Your task to perform on an android device: See recent photos Image 0: 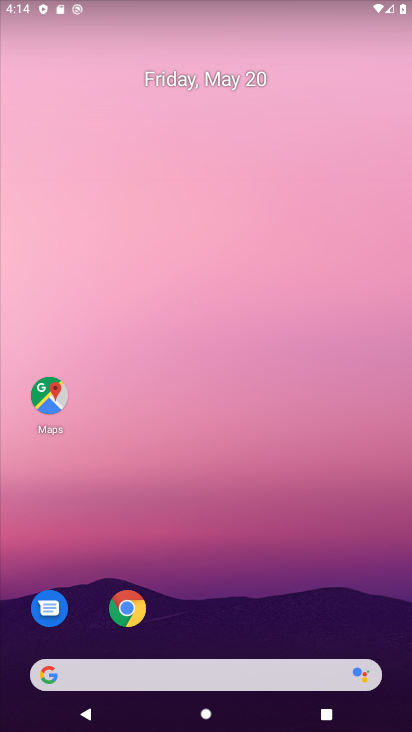
Step 0: drag from (200, 651) to (183, 60)
Your task to perform on an android device: See recent photos Image 1: 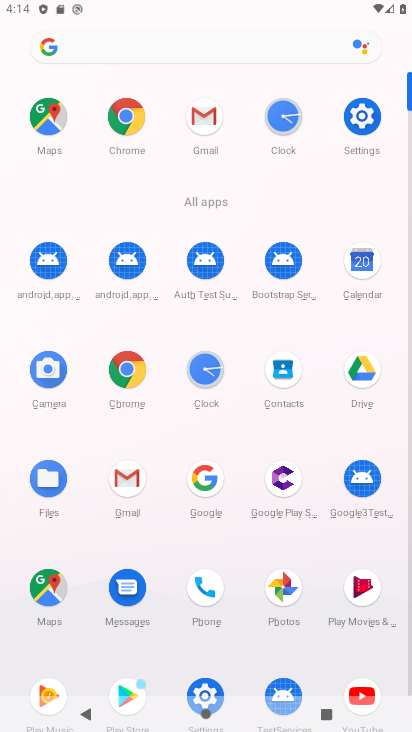
Step 1: click (294, 597)
Your task to perform on an android device: See recent photos Image 2: 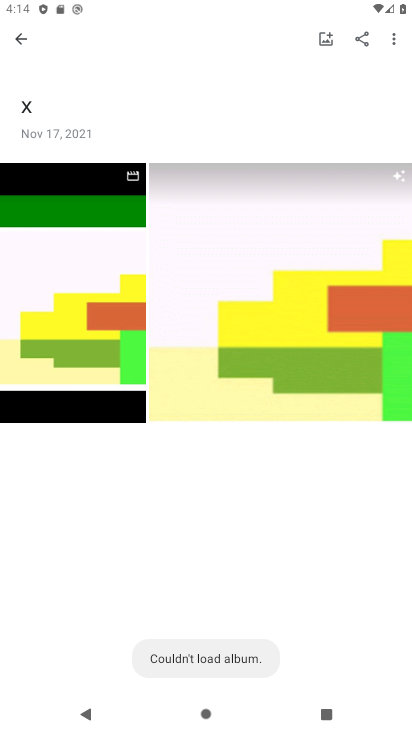
Step 2: click (10, 40)
Your task to perform on an android device: See recent photos Image 3: 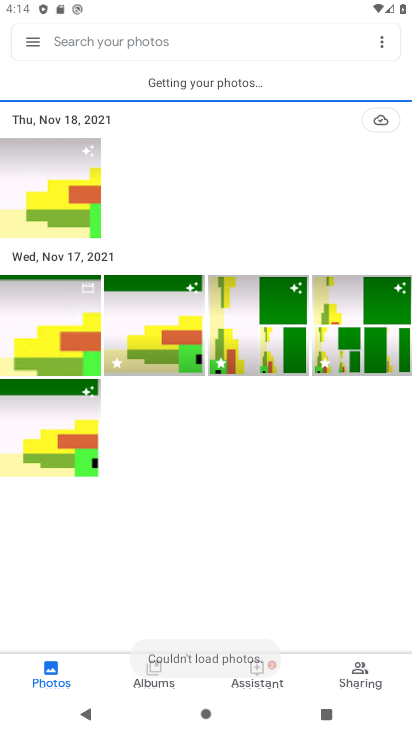
Step 3: click (52, 191)
Your task to perform on an android device: See recent photos Image 4: 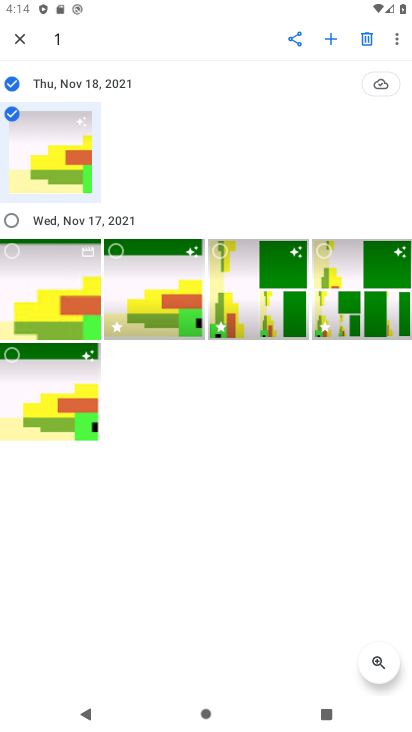
Step 4: click (75, 278)
Your task to perform on an android device: See recent photos Image 5: 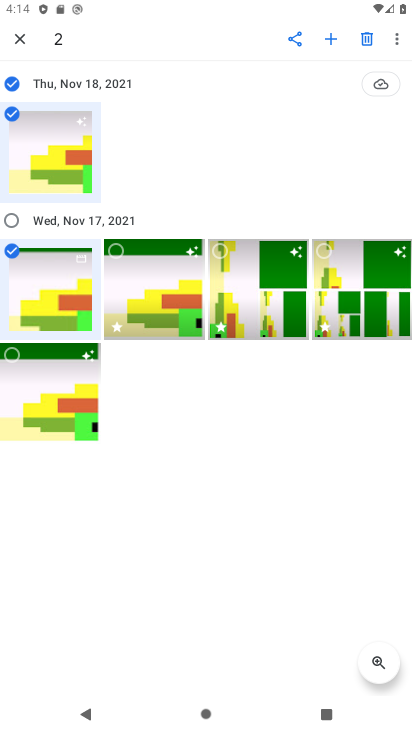
Step 5: click (108, 281)
Your task to perform on an android device: See recent photos Image 6: 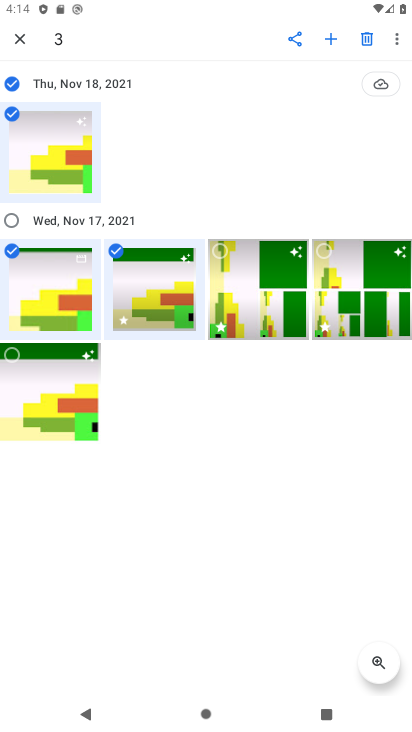
Step 6: click (327, 42)
Your task to perform on an android device: See recent photos Image 7: 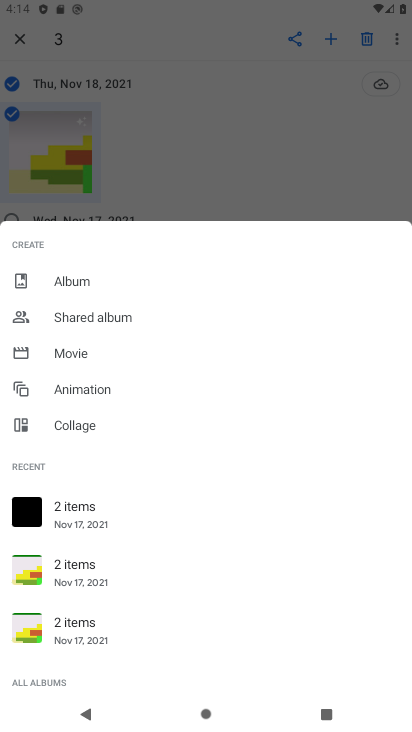
Step 7: click (201, 126)
Your task to perform on an android device: See recent photos Image 8: 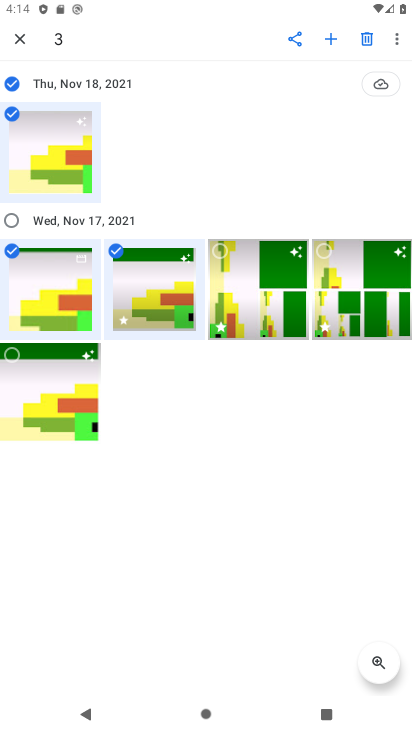
Step 8: click (21, 38)
Your task to perform on an android device: See recent photos Image 9: 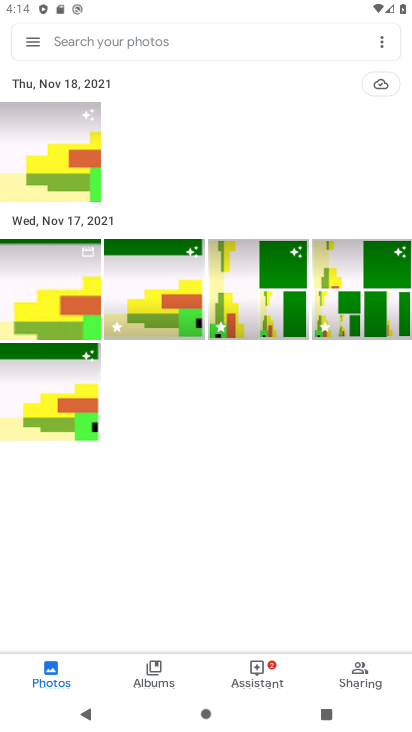
Step 9: task complete